Your task to perform on an android device: snooze an email in the gmail app Image 0: 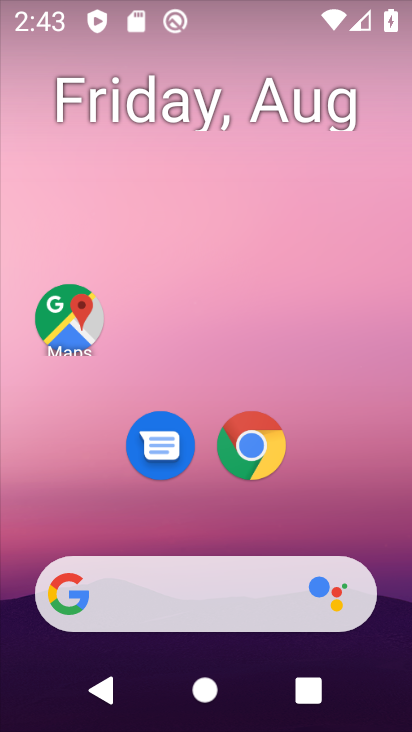
Step 0: drag from (316, 485) to (325, 111)
Your task to perform on an android device: snooze an email in the gmail app Image 1: 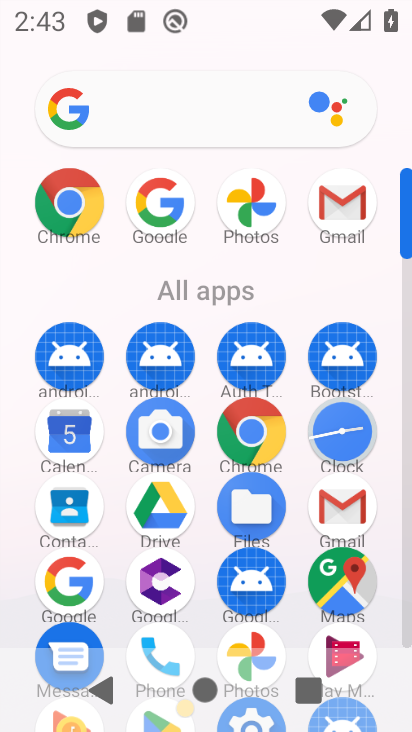
Step 1: click (341, 510)
Your task to perform on an android device: snooze an email in the gmail app Image 2: 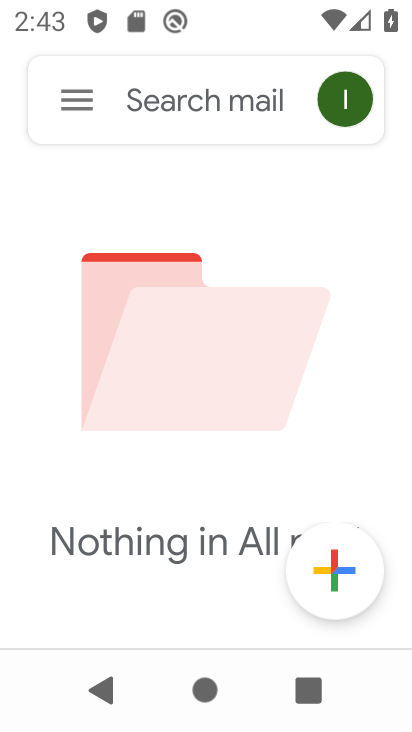
Step 2: click (67, 89)
Your task to perform on an android device: snooze an email in the gmail app Image 3: 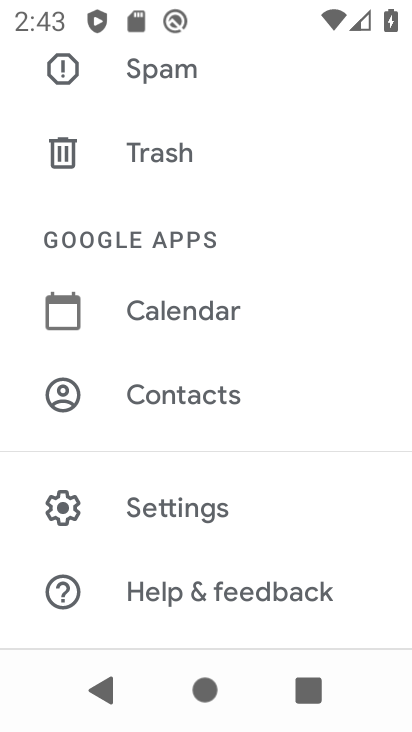
Step 3: drag from (247, 160) to (258, 606)
Your task to perform on an android device: snooze an email in the gmail app Image 4: 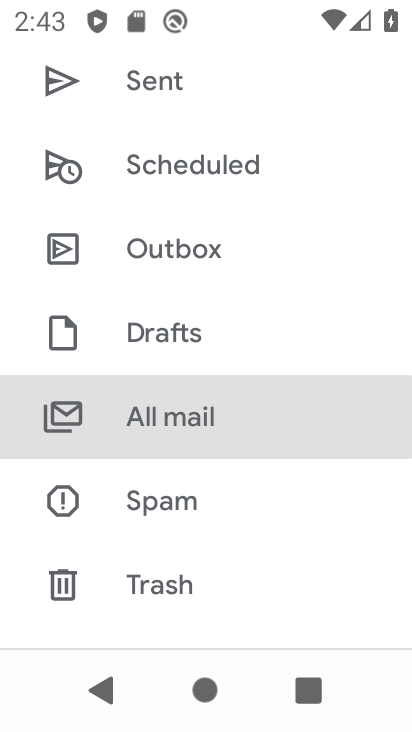
Step 4: click (211, 430)
Your task to perform on an android device: snooze an email in the gmail app Image 5: 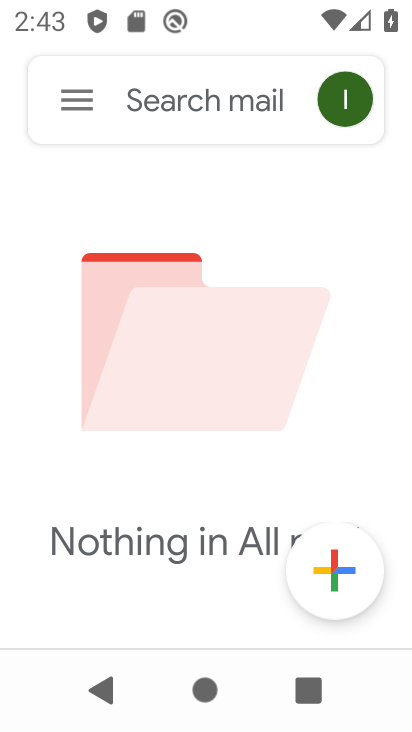
Step 5: task complete